Your task to perform on an android device: turn notification dots on Image 0: 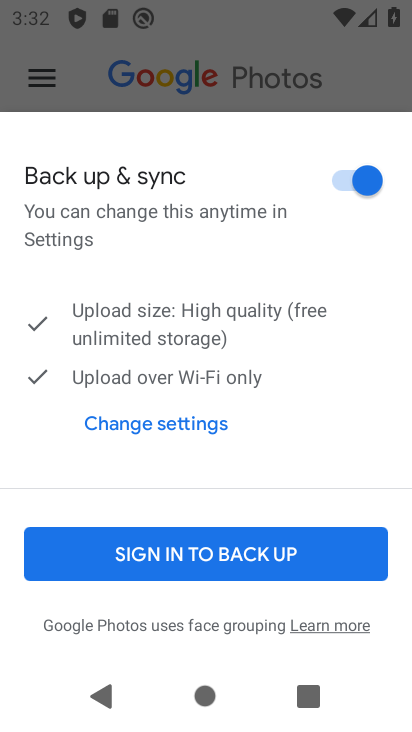
Step 0: press home button
Your task to perform on an android device: turn notification dots on Image 1: 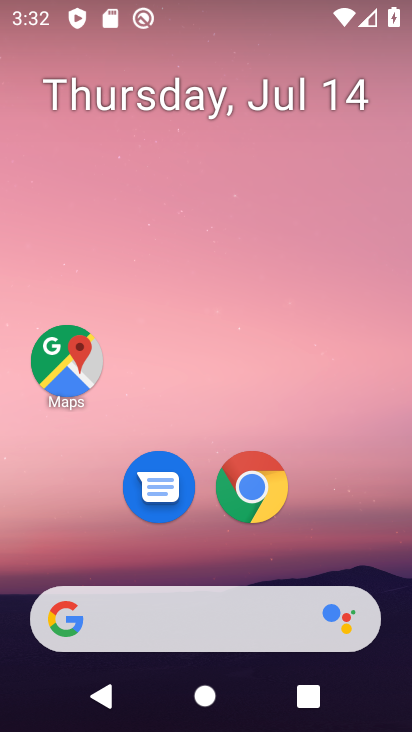
Step 1: drag from (224, 637) to (308, 103)
Your task to perform on an android device: turn notification dots on Image 2: 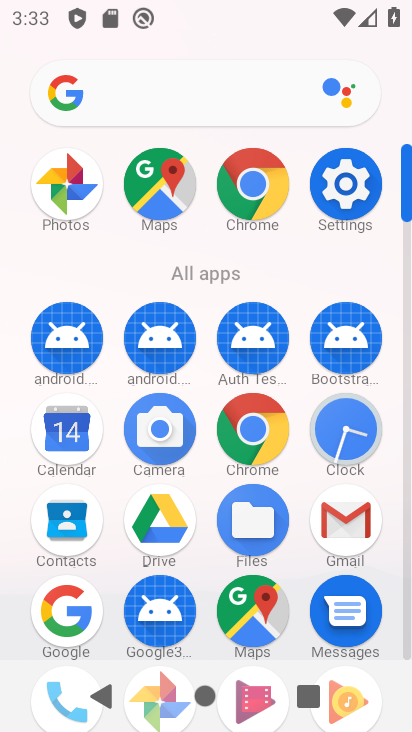
Step 2: click (348, 209)
Your task to perform on an android device: turn notification dots on Image 3: 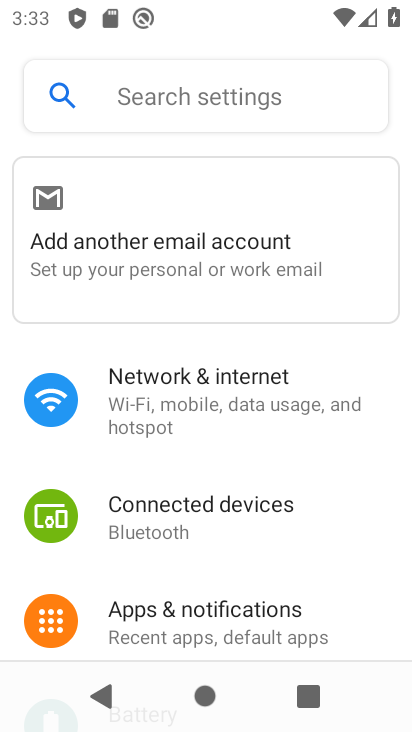
Step 3: click (224, 625)
Your task to perform on an android device: turn notification dots on Image 4: 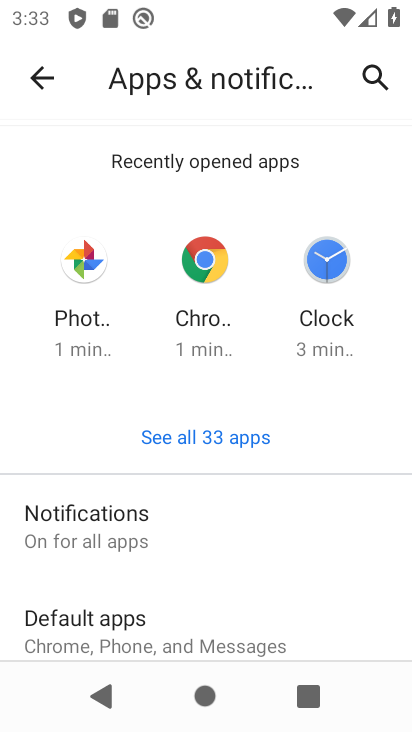
Step 4: click (180, 520)
Your task to perform on an android device: turn notification dots on Image 5: 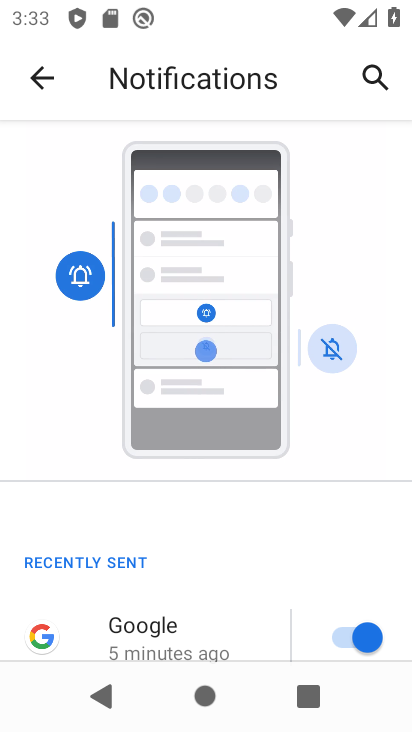
Step 5: drag from (241, 591) to (308, 132)
Your task to perform on an android device: turn notification dots on Image 6: 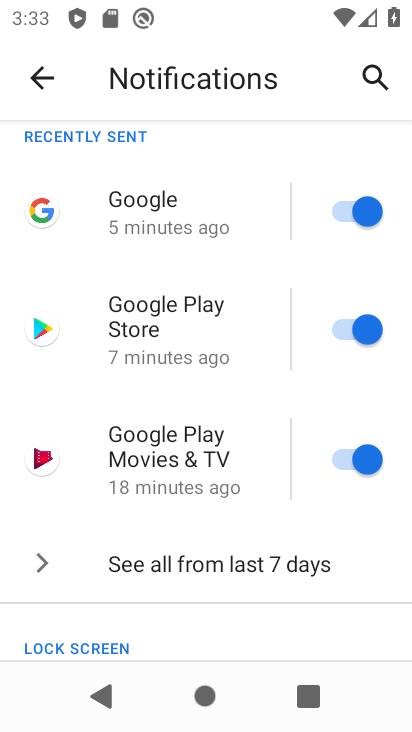
Step 6: press home button
Your task to perform on an android device: turn notification dots on Image 7: 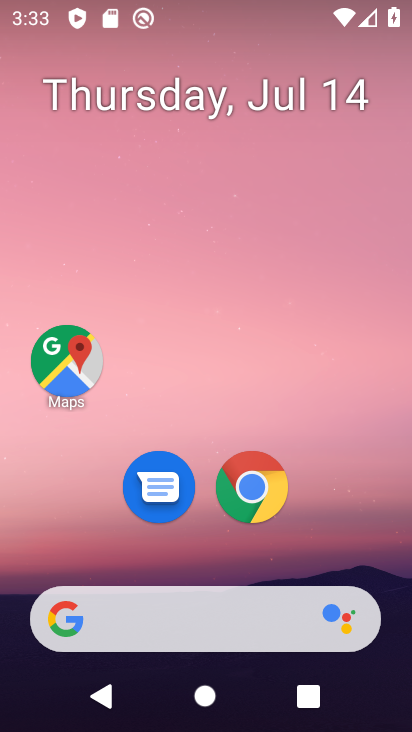
Step 7: drag from (201, 625) to (307, 136)
Your task to perform on an android device: turn notification dots on Image 8: 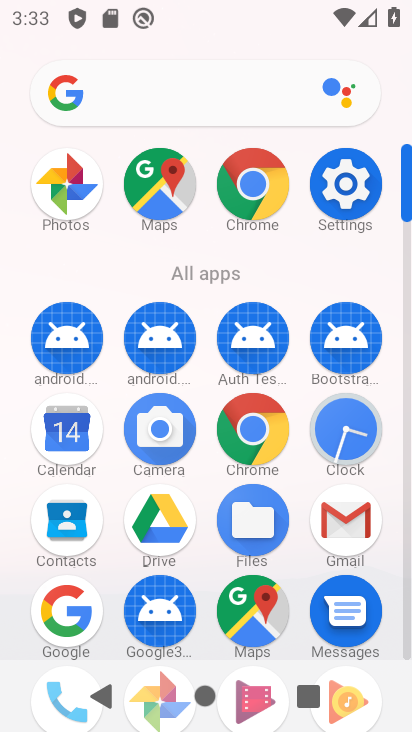
Step 8: click (361, 202)
Your task to perform on an android device: turn notification dots on Image 9: 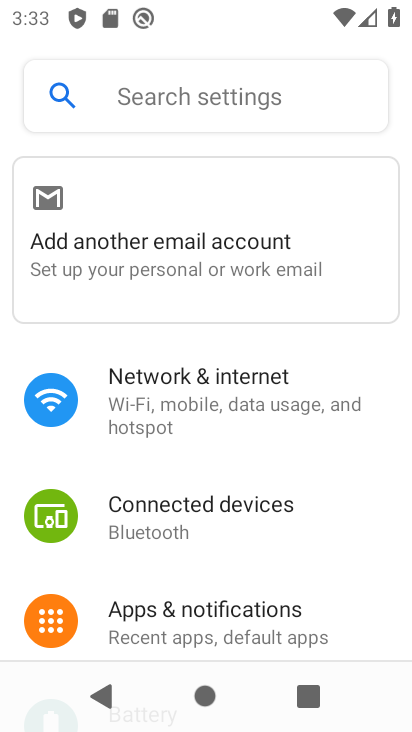
Step 9: click (218, 621)
Your task to perform on an android device: turn notification dots on Image 10: 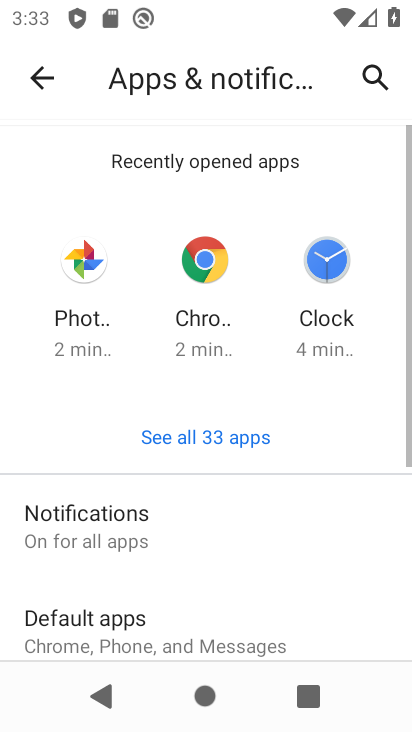
Step 10: drag from (239, 568) to (294, 261)
Your task to perform on an android device: turn notification dots on Image 11: 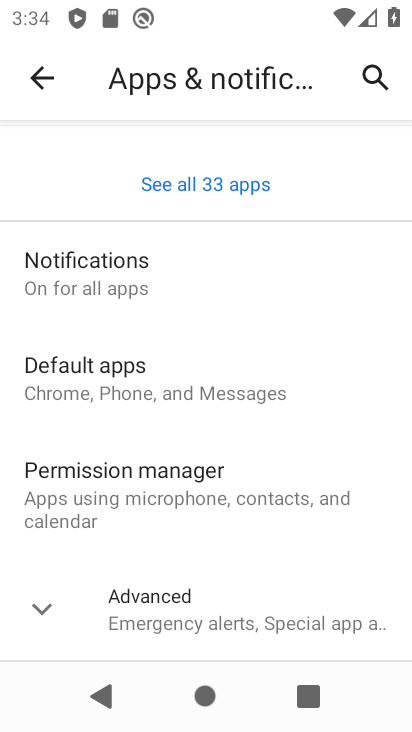
Step 11: click (211, 273)
Your task to perform on an android device: turn notification dots on Image 12: 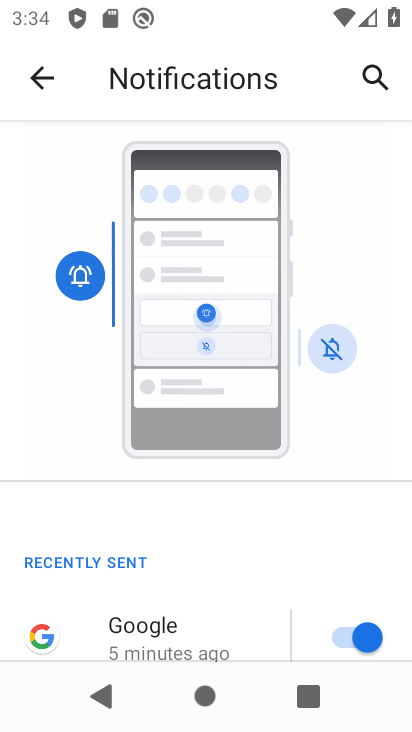
Step 12: drag from (209, 588) to (294, 81)
Your task to perform on an android device: turn notification dots on Image 13: 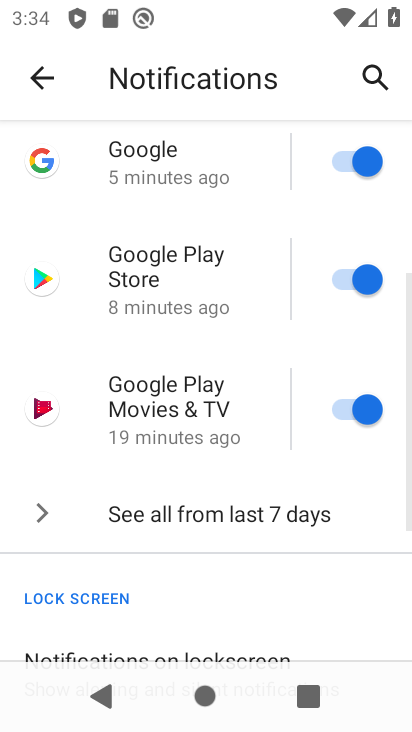
Step 13: drag from (228, 539) to (258, 282)
Your task to perform on an android device: turn notification dots on Image 14: 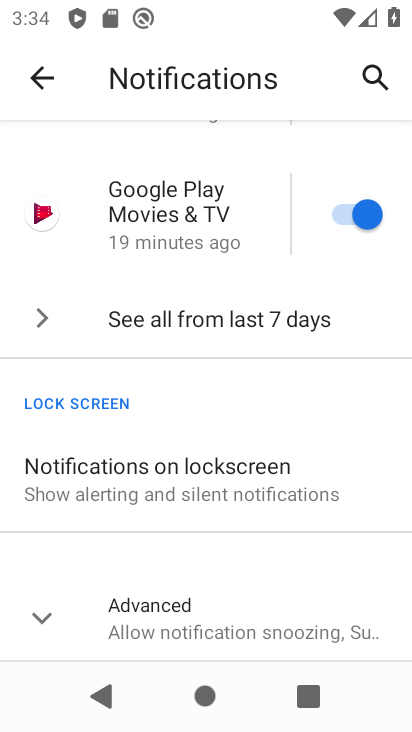
Step 14: click (227, 628)
Your task to perform on an android device: turn notification dots on Image 15: 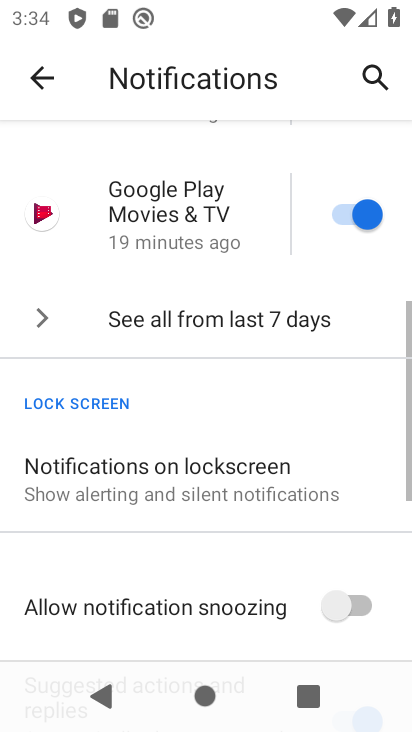
Step 15: task complete